Your task to perform on an android device: Empty the shopping cart on target.com. Search for "dell xps" on target.com, select the first entry, add it to the cart, then select checkout. Image 0: 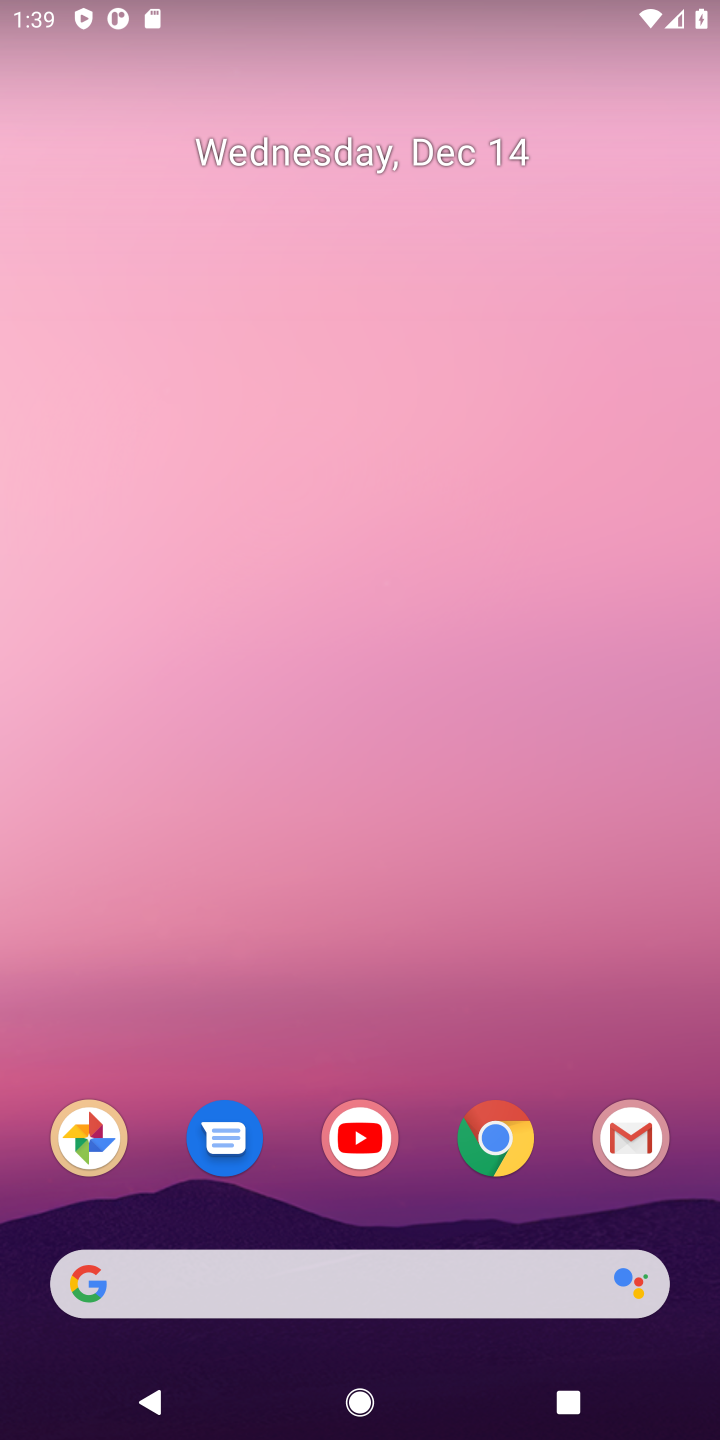
Step 0: click (467, 1149)
Your task to perform on an android device: Empty the shopping cart on target.com. Search for "dell xps" on target.com, select the first entry, add it to the cart, then select checkout. Image 1: 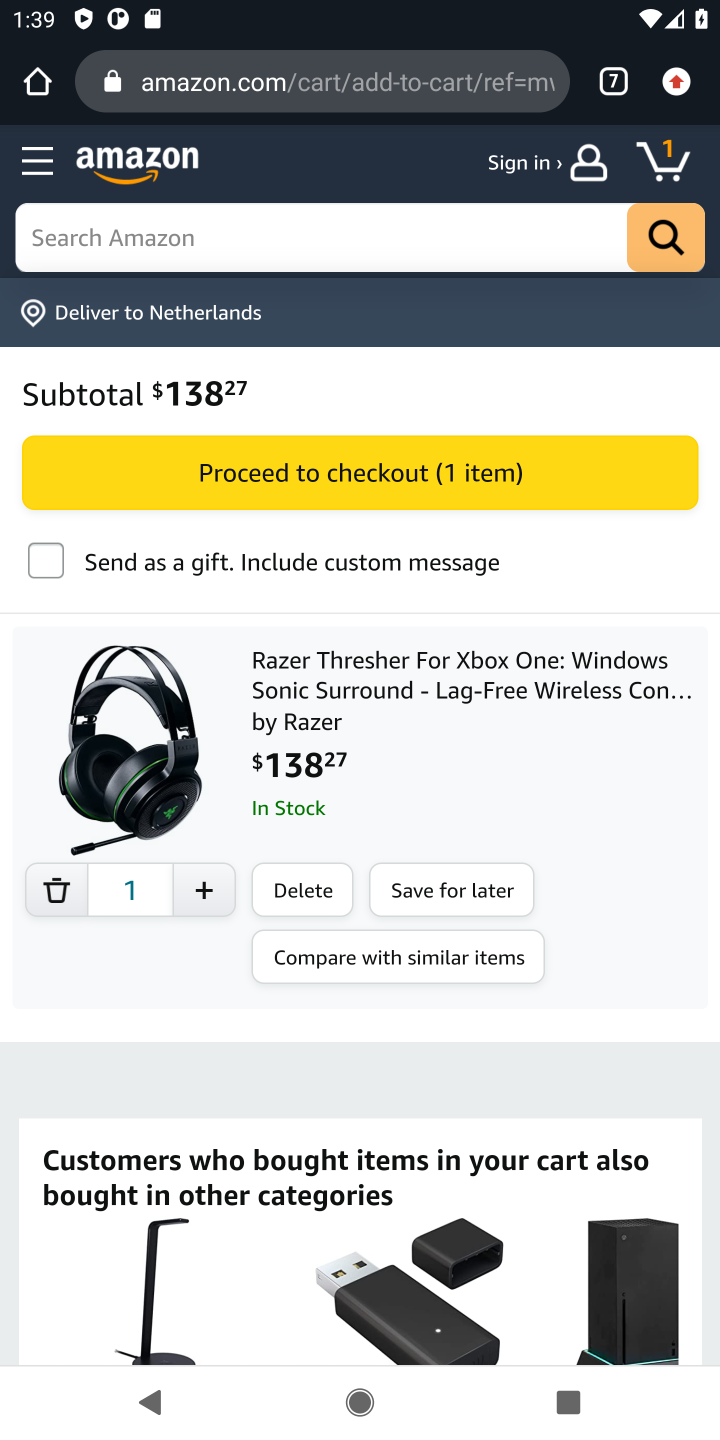
Step 1: click (603, 75)
Your task to perform on an android device: Empty the shopping cart on target.com. Search for "dell xps" on target.com, select the first entry, add it to the cart, then select checkout. Image 2: 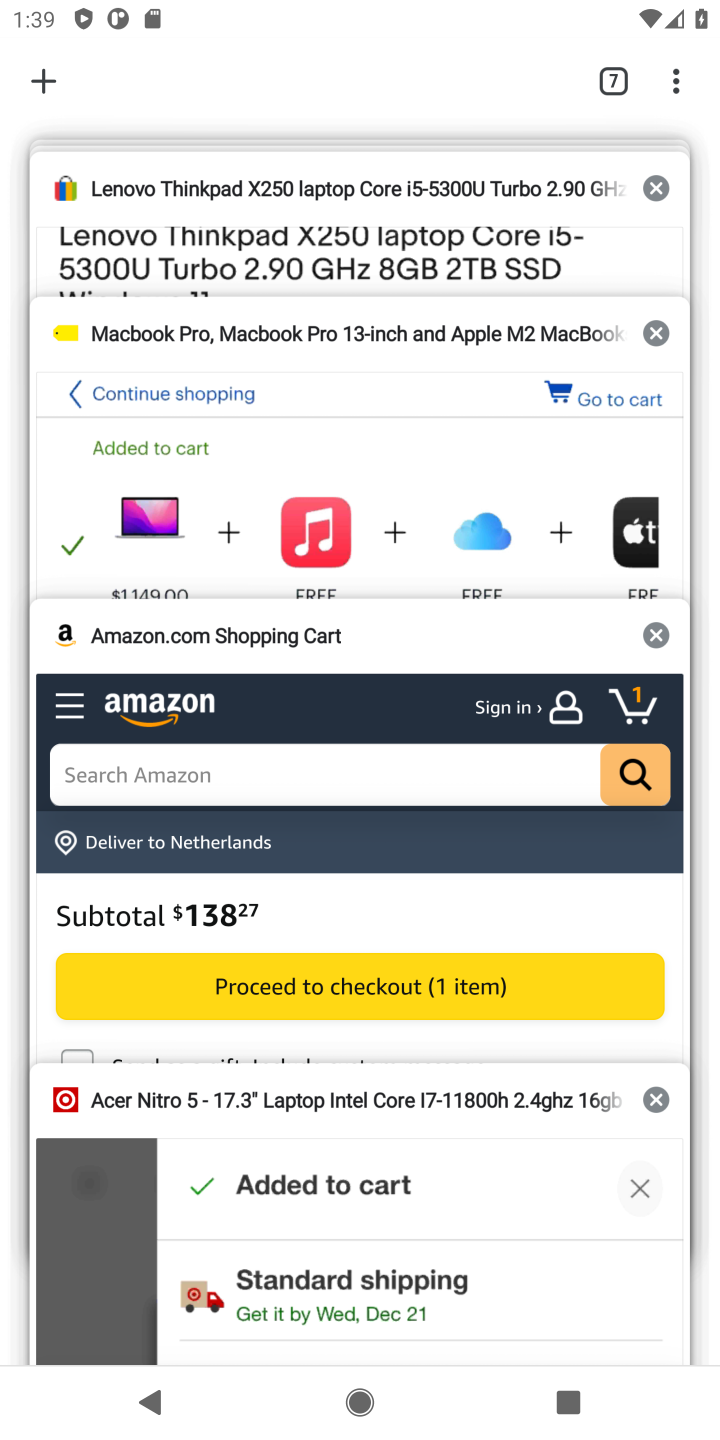
Step 2: click (159, 1172)
Your task to perform on an android device: Empty the shopping cart on target.com. Search for "dell xps" on target.com, select the first entry, add it to the cart, then select checkout. Image 3: 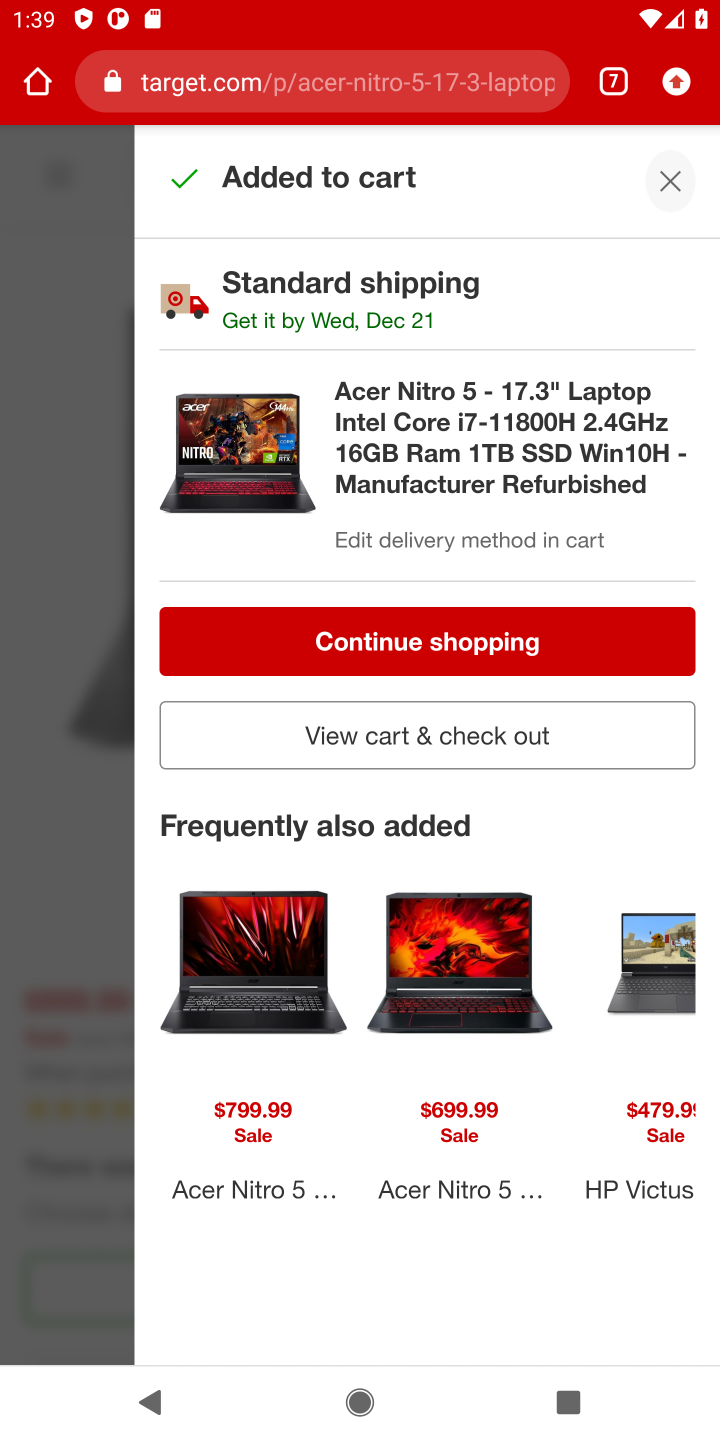
Step 3: click (515, 732)
Your task to perform on an android device: Empty the shopping cart on target.com. Search for "dell xps" on target.com, select the first entry, add it to the cart, then select checkout. Image 4: 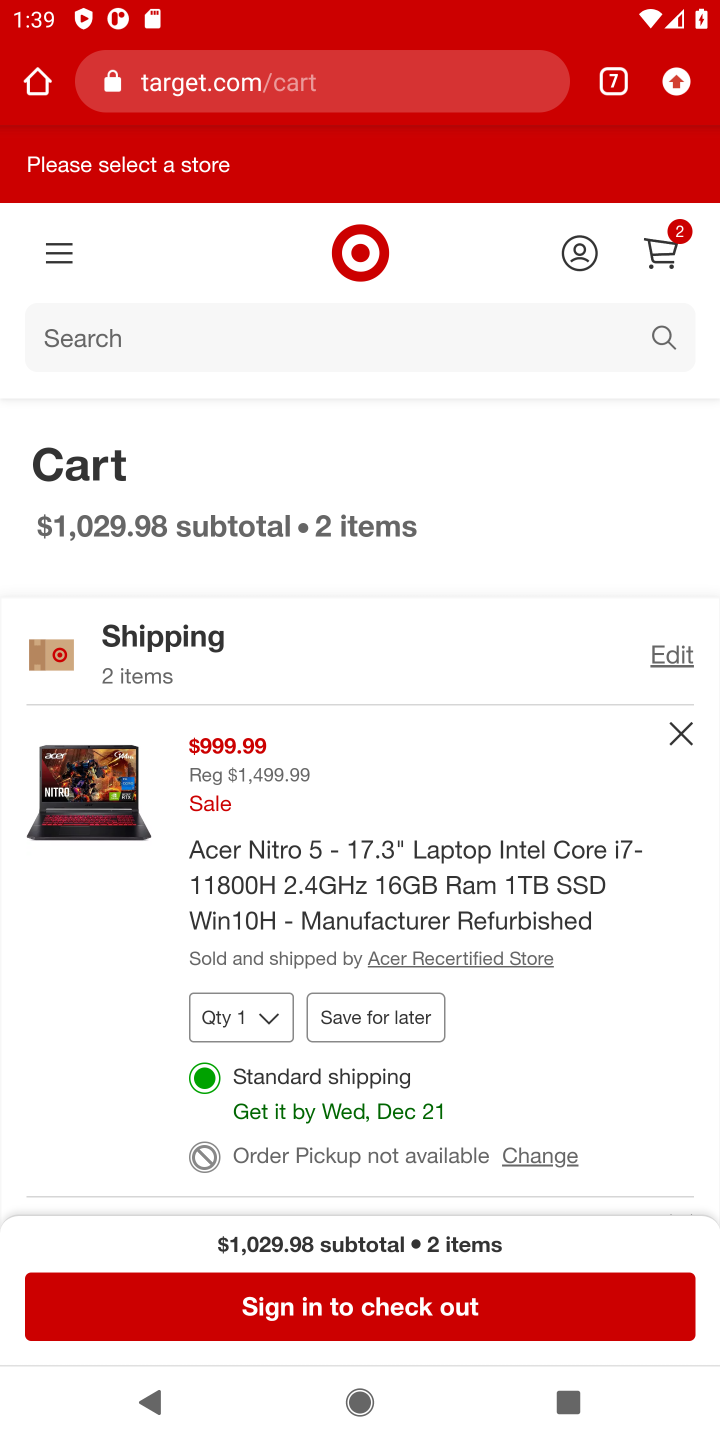
Step 4: click (662, 730)
Your task to perform on an android device: Empty the shopping cart on target.com. Search for "dell xps" on target.com, select the first entry, add it to the cart, then select checkout. Image 5: 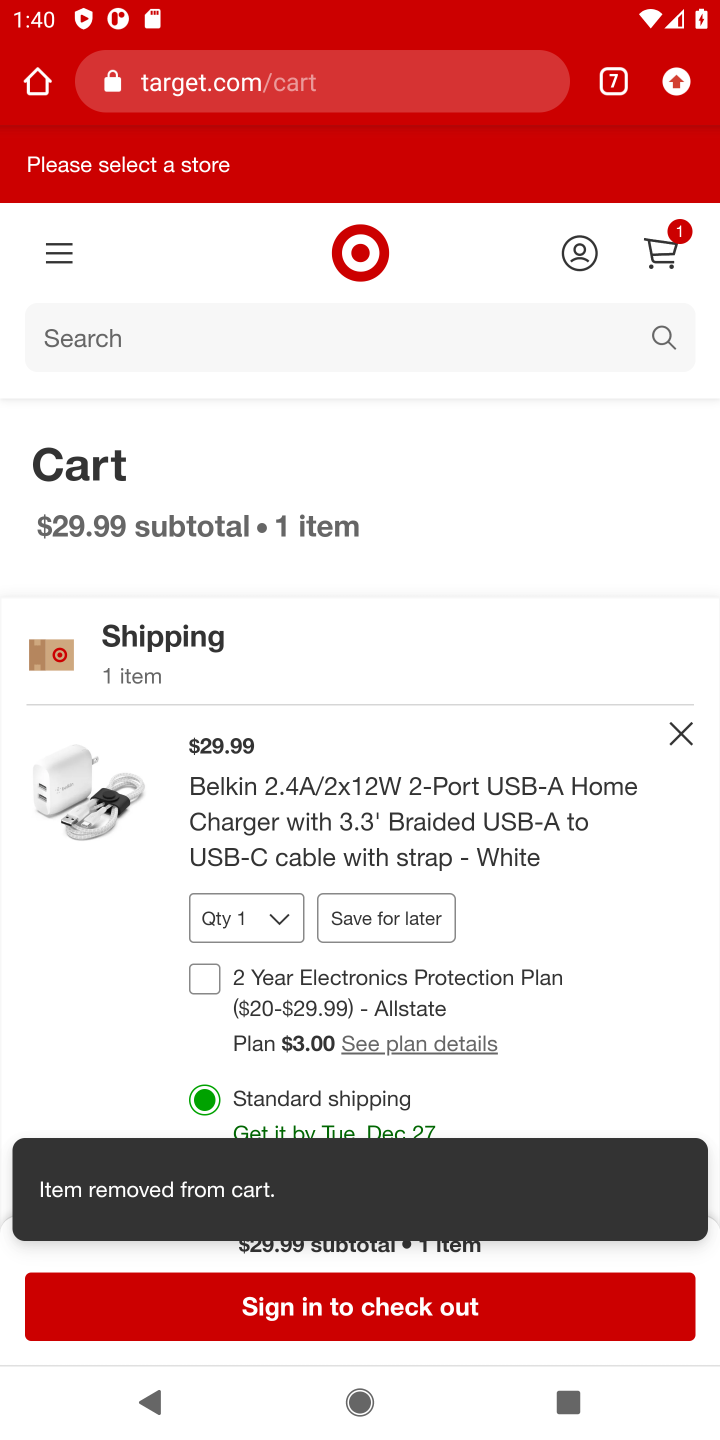
Step 5: click (677, 723)
Your task to perform on an android device: Empty the shopping cart on target.com. Search for "dell xps" on target.com, select the first entry, add it to the cart, then select checkout. Image 6: 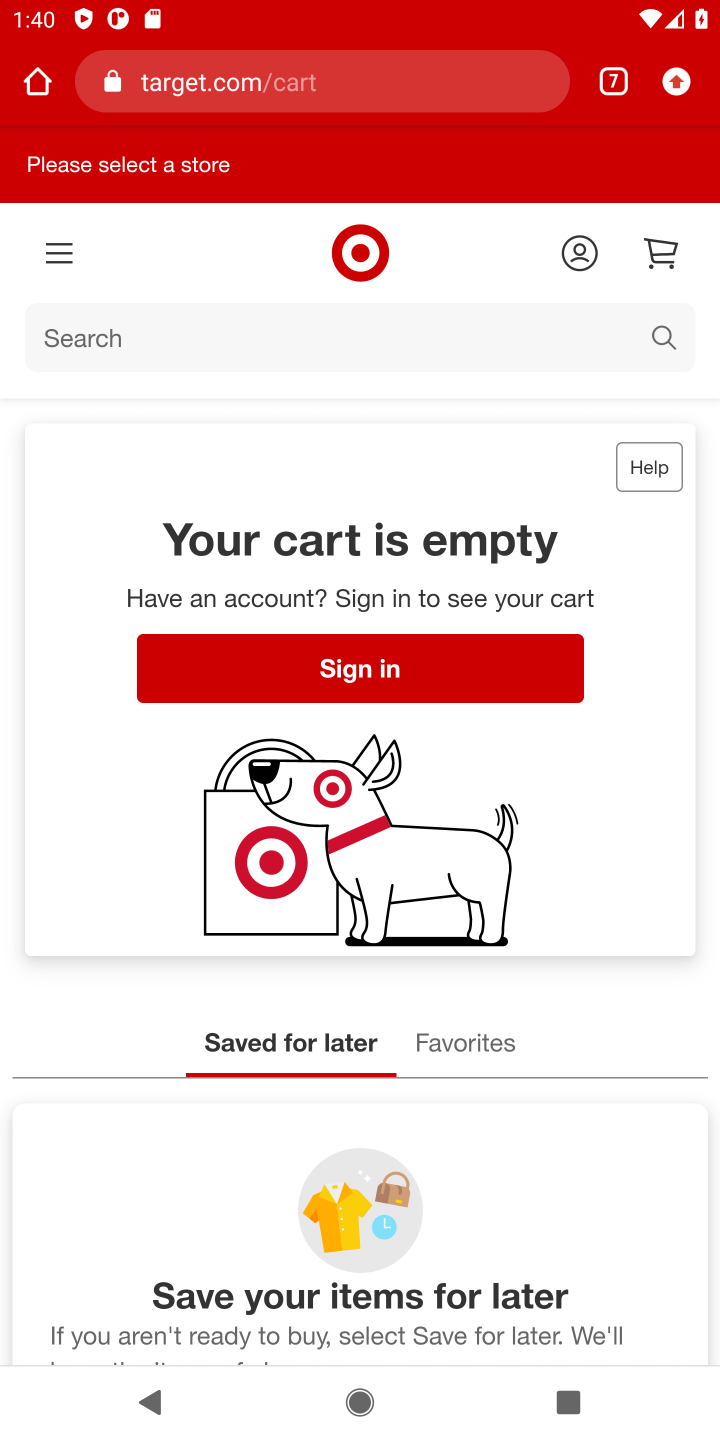
Step 6: click (50, 330)
Your task to perform on an android device: Empty the shopping cart on target.com. Search for "dell xps" on target.com, select the first entry, add it to the cart, then select checkout. Image 7: 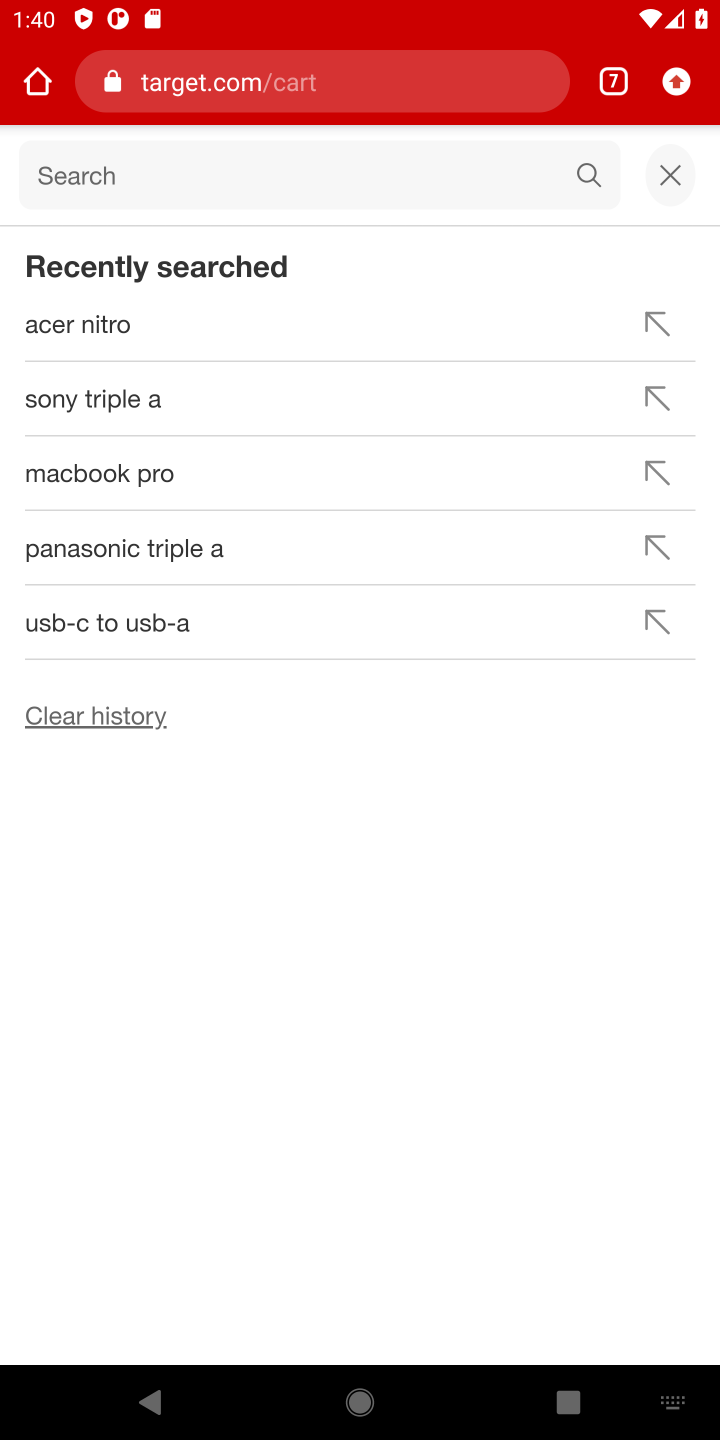
Step 7: type "dell xps"
Your task to perform on an android device: Empty the shopping cart on target.com. Search for "dell xps" on target.com, select the first entry, add it to the cart, then select checkout. Image 8: 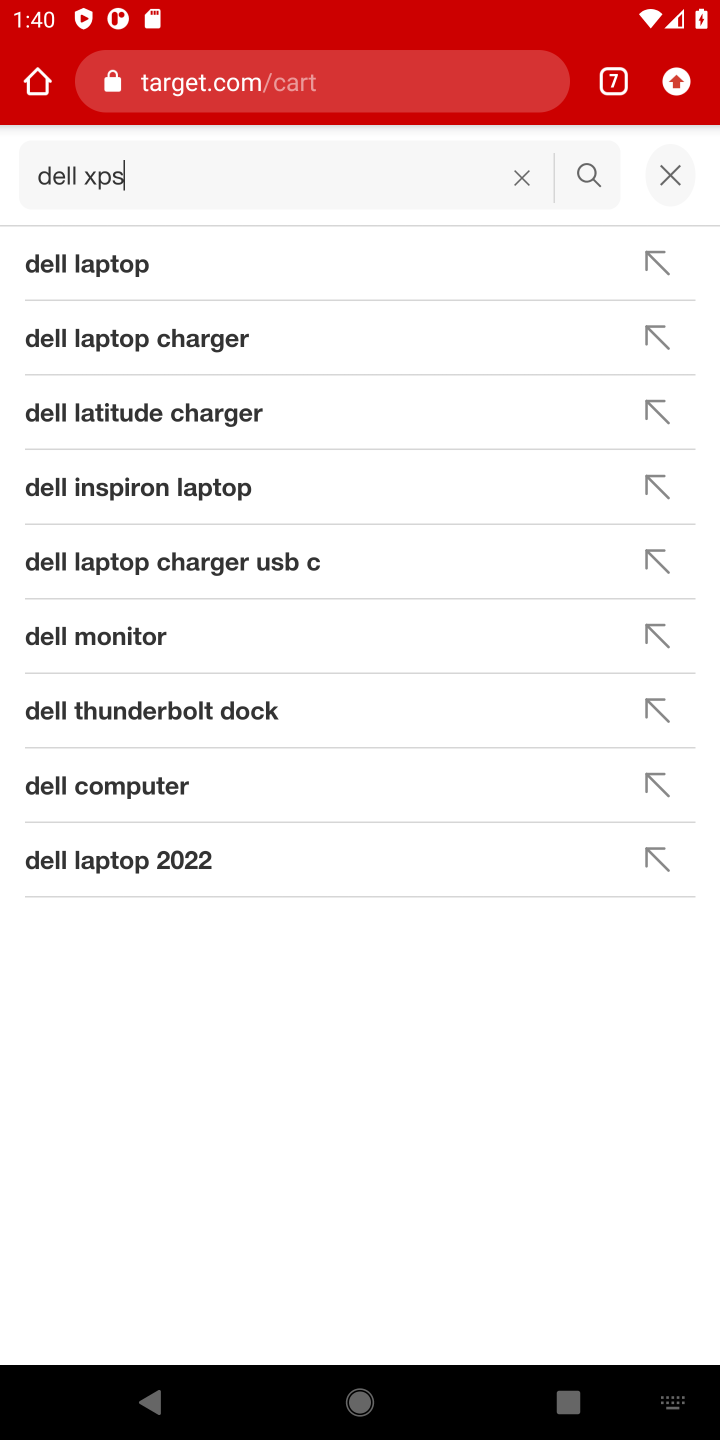
Step 8: click (589, 177)
Your task to perform on an android device: Empty the shopping cart on target.com. Search for "dell xps" on target.com, select the first entry, add it to the cart, then select checkout. Image 9: 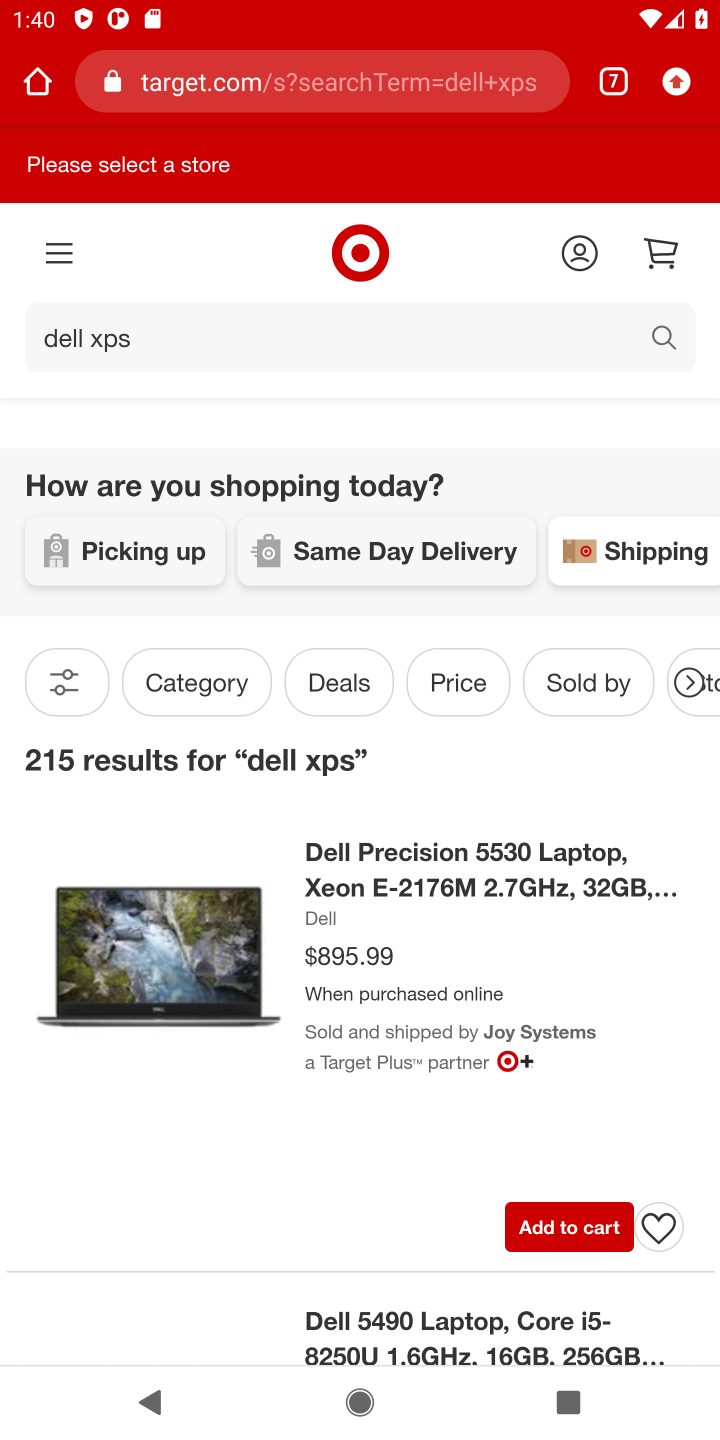
Step 9: task complete